Your task to perform on an android device: change the clock display to analog Image 0: 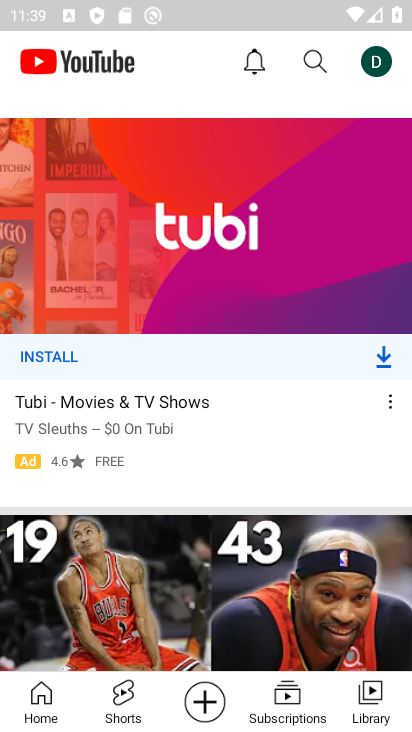
Step 0: press home button
Your task to perform on an android device: change the clock display to analog Image 1: 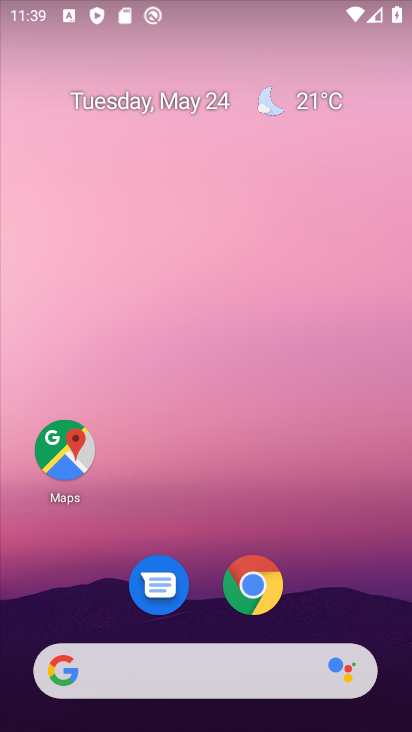
Step 1: drag from (252, 497) to (274, 18)
Your task to perform on an android device: change the clock display to analog Image 2: 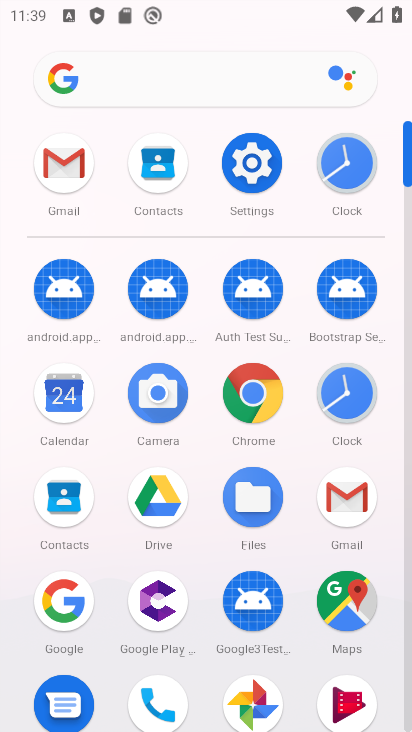
Step 2: click (329, 153)
Your task to perform on an android device: change the clock display to analog Image 3: 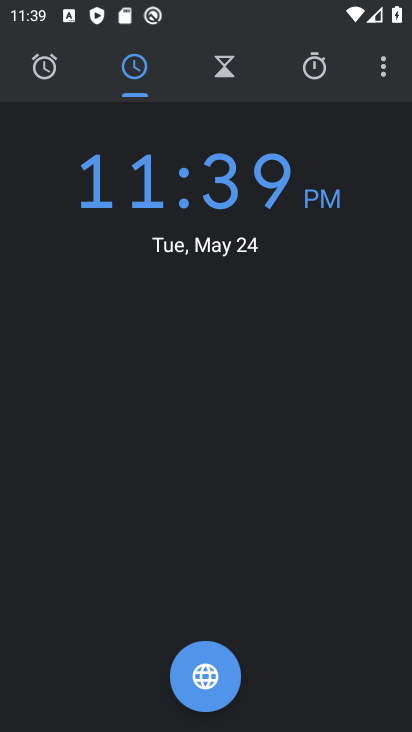
Step 3: click (380, 71)
Your task to perform on an android device: change the clock display to analog Image 4: 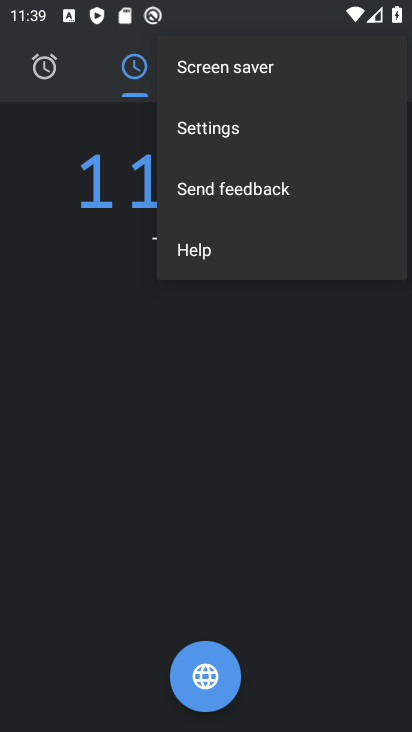
Step 4: click (310, 134)
Your task to perform on an android device: change the clock display to analog Image 5: 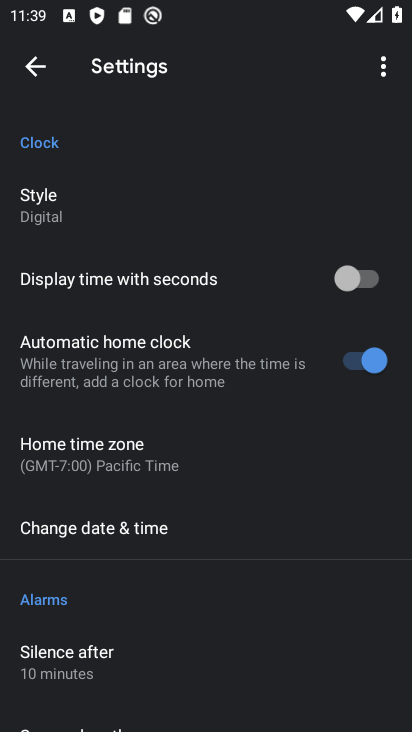
Step 5: click (192, 216)
Your task to perform on an android device: change the clock display to analog Image 6: 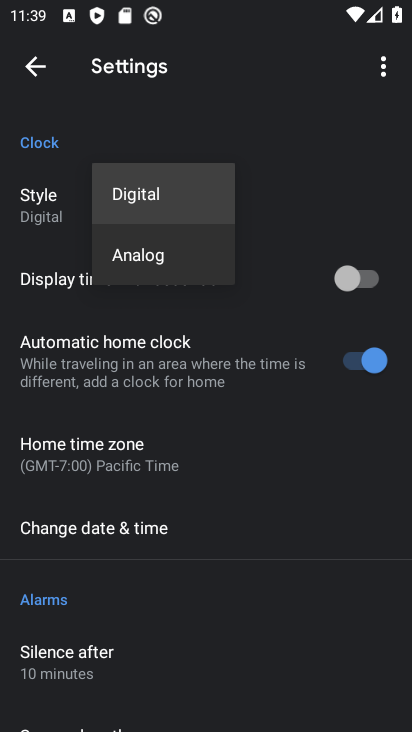
Step 6: click (178, 254)
Your task to perform on an android device: change the clock display to analog Image 7: 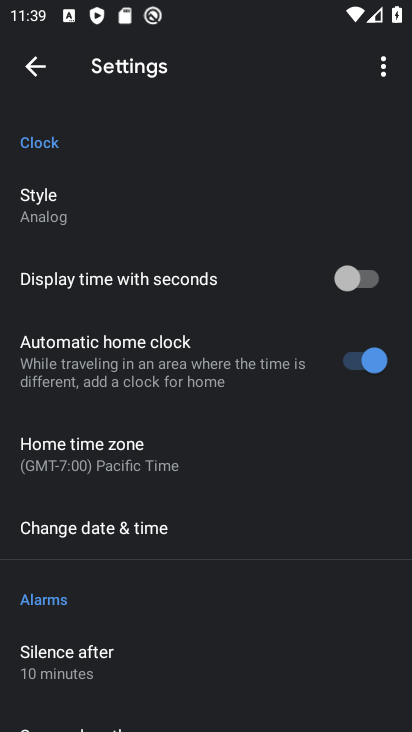
Step 7: click (38, 71)
Your task to perform on an android device: change the clock display to analog Image 8: 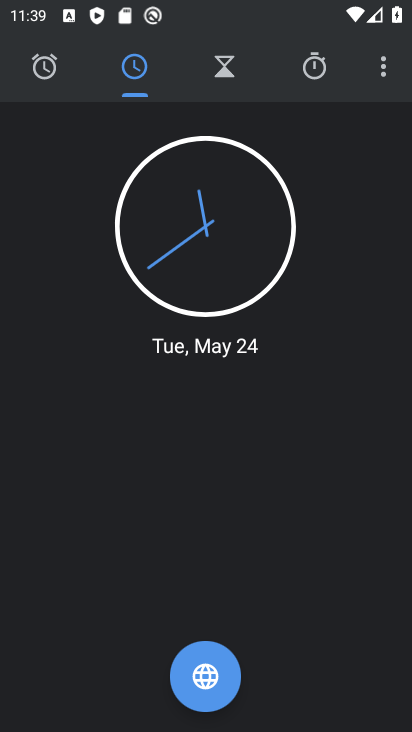
Step 8: task complete